Your task to perform on an android device: turn on bluetooth scan Image 0: 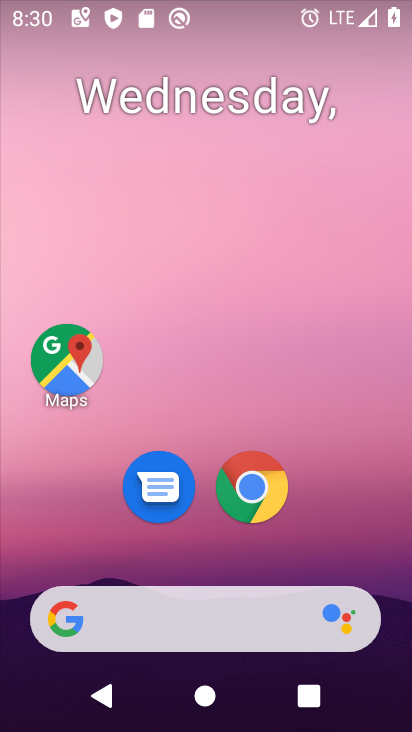
Step 0: drag from (360, 559) to (321, 13)
Your task to perform on an android device: turn on bluetooth scan Image 1: 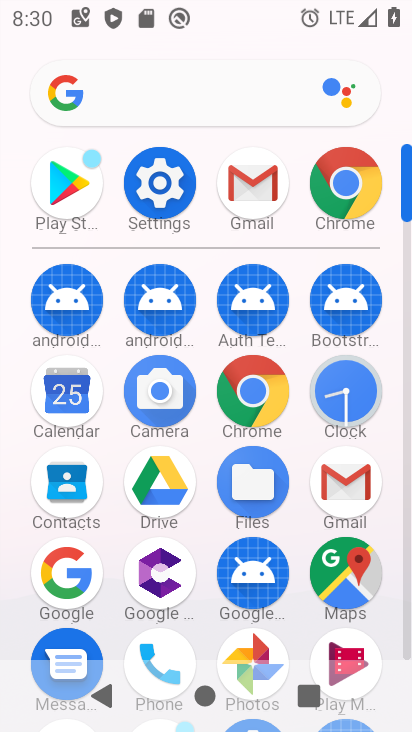
Step 1: click (168, 185)
Your task to perform on an android device: turn on bluetooth scan Image 2: 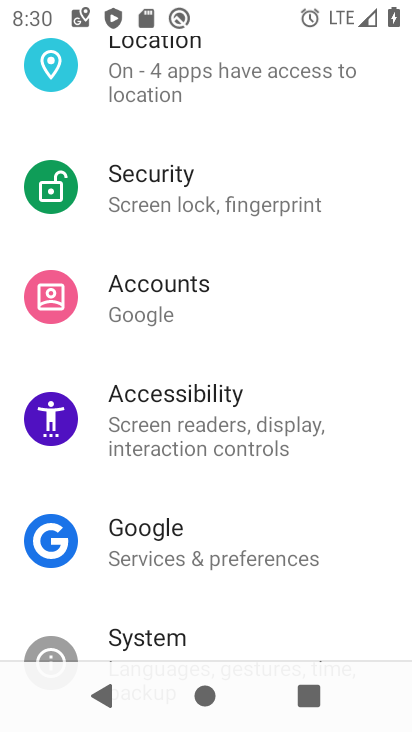
Step 2: click (182, 72)
Your task to perform on an android device: turn on bluetooth scan Image 3: 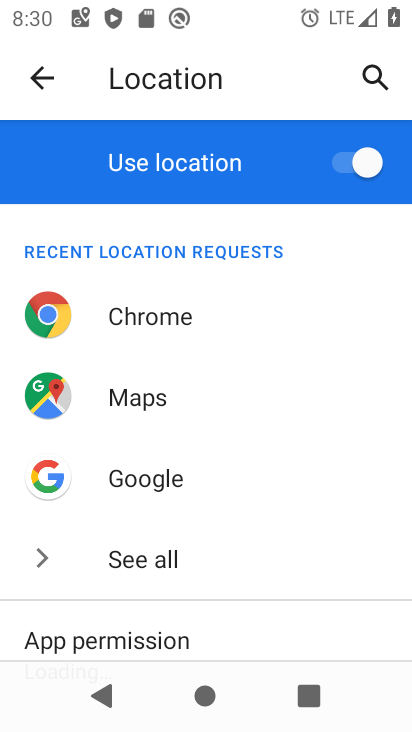
Step 3: drag from (234, 469) to (224, 82)
Your task to perform on an android device: turn on bluetooth scan Image 4: 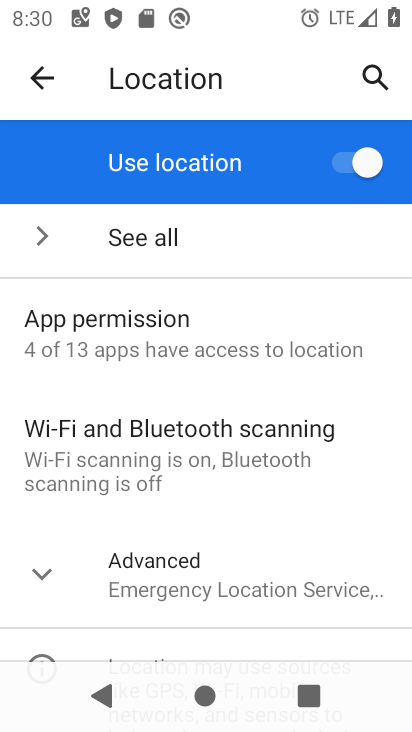
Step 4: click (125, 445)
Your task to perform on an android device: turn on bluetooth scan Image 5: 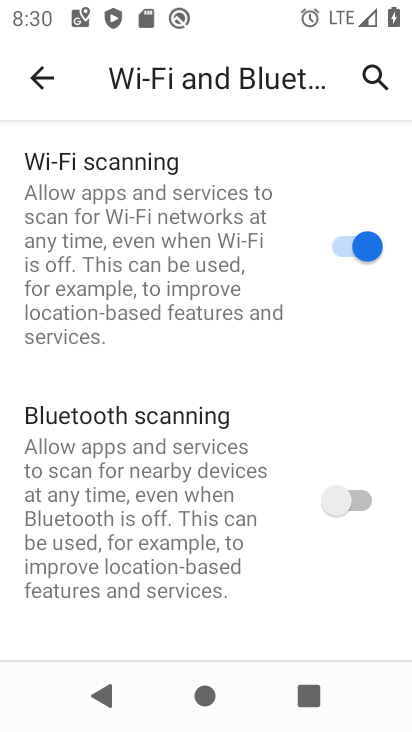
Step 5: click (351, 513)
Your task to perform on an android device: turn on bluetooth scan Image 6: 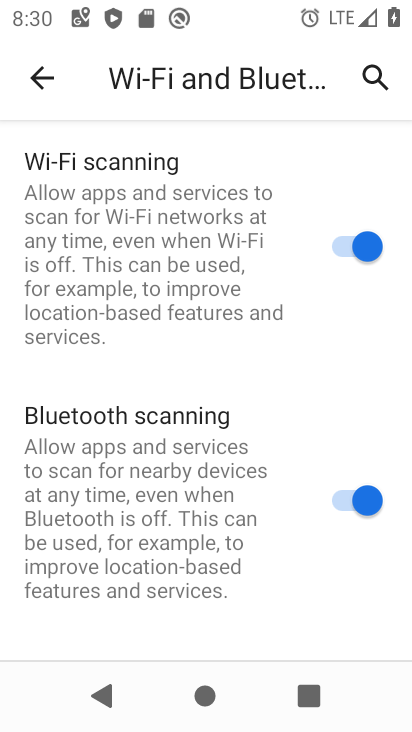
Step 6: task complete